Your task to perform on an android device: toggle airplane mode Image 0: 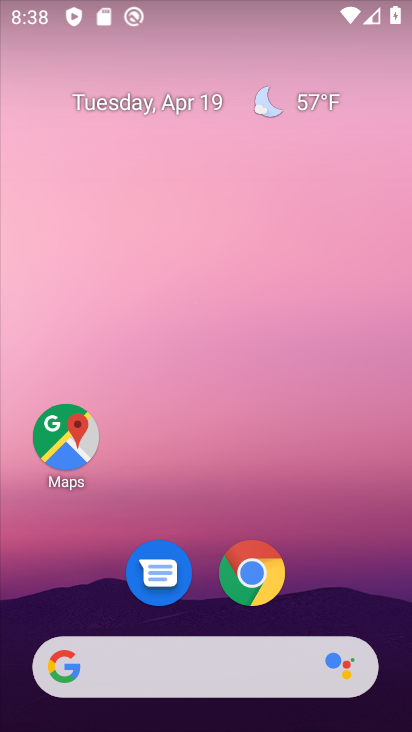
Step 0: drag from (318, 408) to (294, 123)
Your task to perform on an android device: toggle airplane mode Image 1: 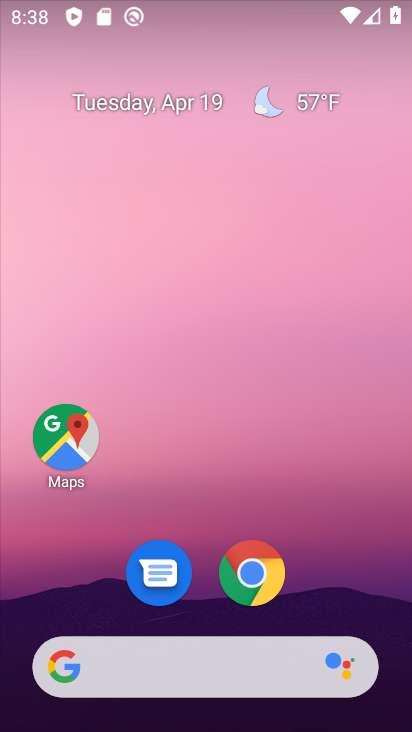
Step 1: drag from (317, 591) to (365, 12)
Your task to perform on an android device: toggle airplane mode Image 2: 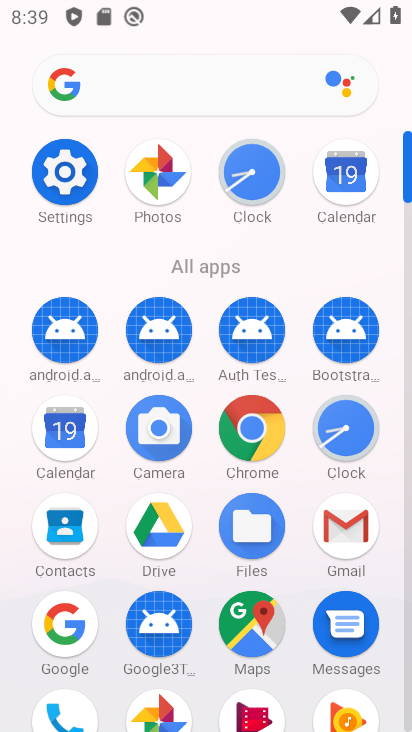
Step 2: click (66, 180)
Your task to perform on an android device: toggle airplane mode Image 3: 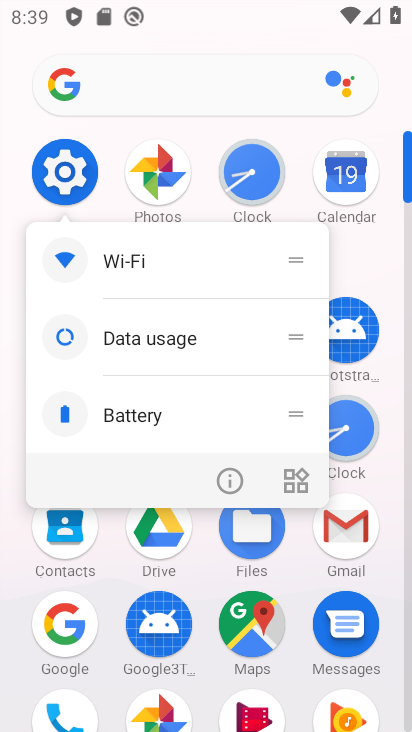
Step 3: click (67, 179)
Your task to perform on an android device: toggle airplane mode Image 4: 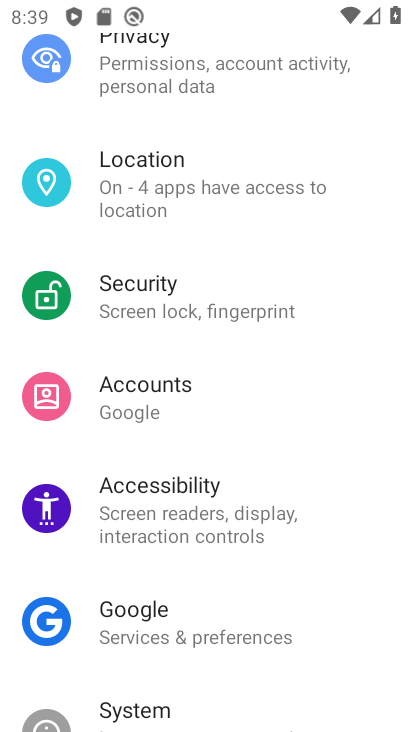
Step 4: drag from (258, 139) to (209, 533)
Your task to perform on an android device: toggle airplane mode Image 5: 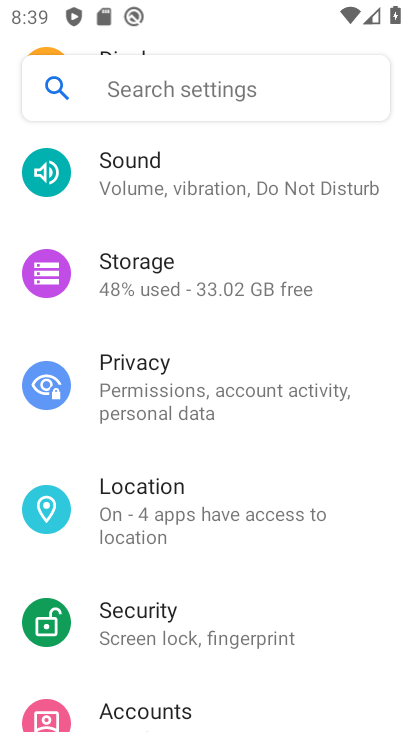
Step 5: drag from (266, 158) to (241, 534)
Your task to perform on an android device: toggle airplane mode Image 6: 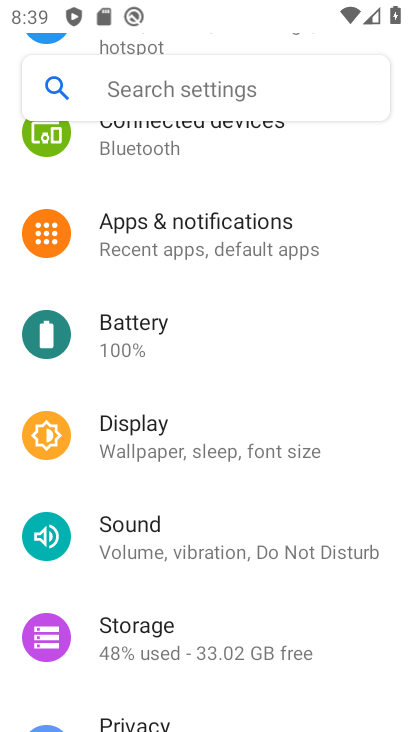
Step 6: drag from (269, 181) to (272, 574)
Your task to perform on an android device: toggle airplane mode Image 7: 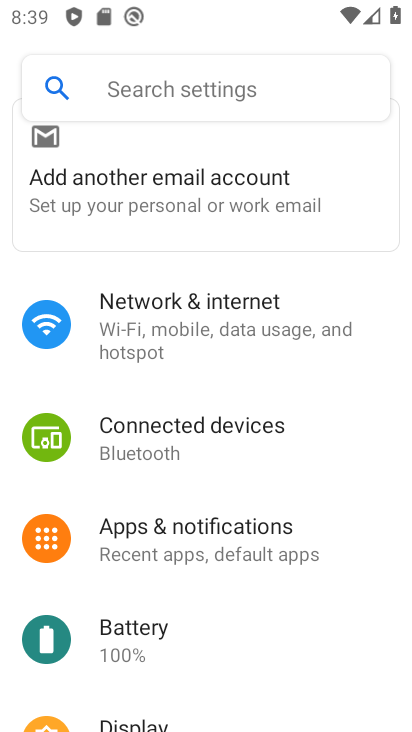
Step 7: click (250, 326)
Your task to perform on an android device: toggle airplane mode Image 8: 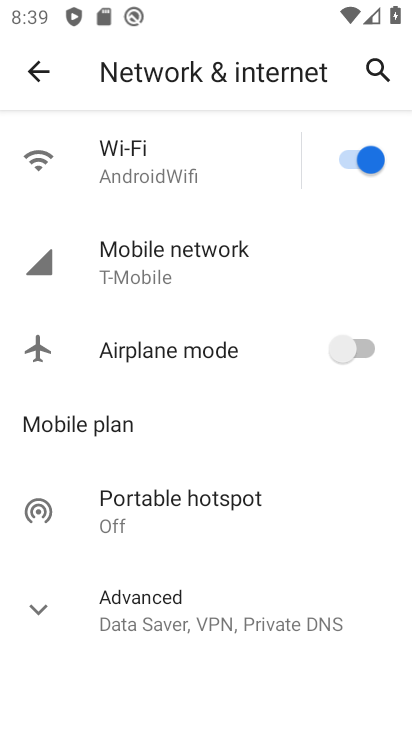
Step 8: click (366, 353)
Your task to perform on an android device: toggle airplane mode Image 9: 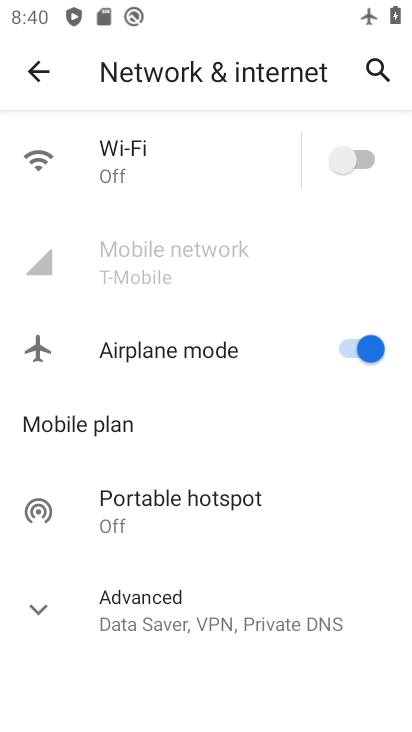
Step 9: task complete